Your task to perform on an android device: Open the calendar app, open the side menu, and click the "Day" option Image 0: 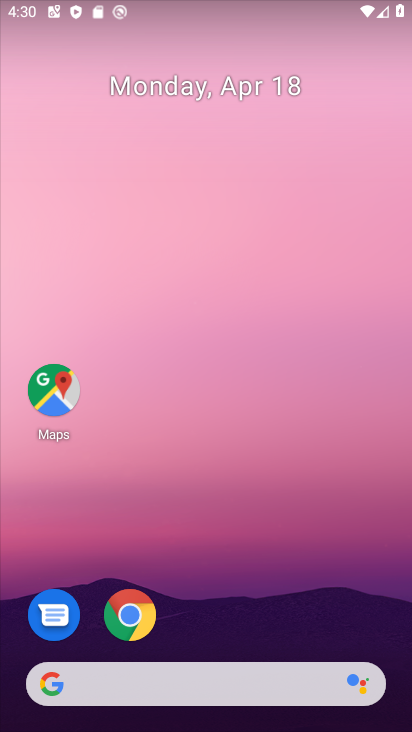
Step 0: drag from (247, 602) to (231, 102)
Your task to perform on an android device: Open the calendar app, open the side menu, and click the "Day" option Image 1: 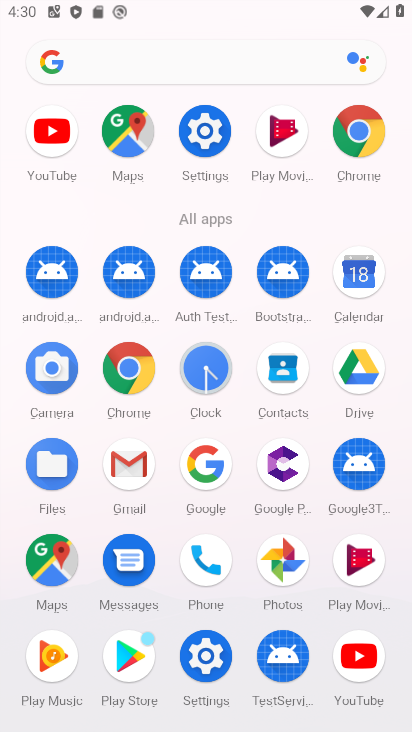
Step 1: drag from (241, 454) to (226, 103)
Your task to perform on an android device: Open the calendar app, open the side menu, and click the "Day" option Image 2: 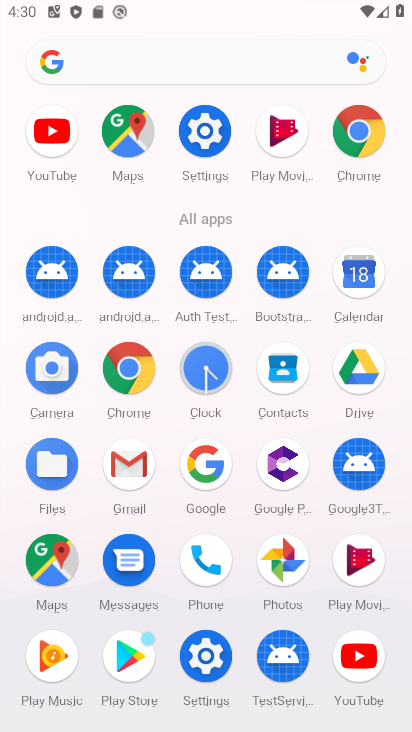
Step 2: click (355, 257)
Your task to perform on an android device: Open the calendar app, open the side menu, and click the "Day" option Image 3: 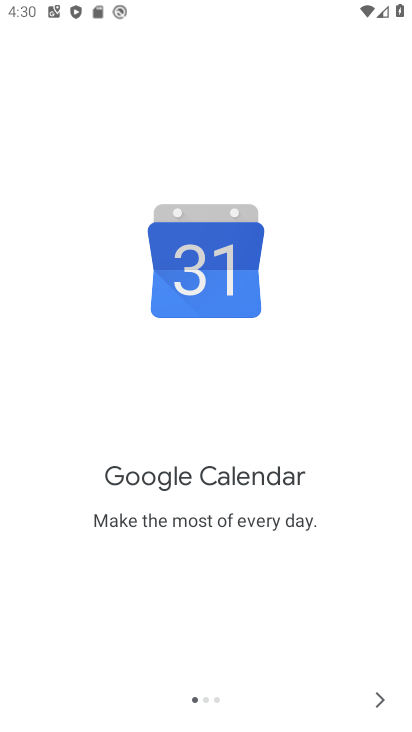
Step 3: click (378, 698)
Your task to perform on an android device: Open the calendar app, open the side menu, and click the "Day" option Image 4: 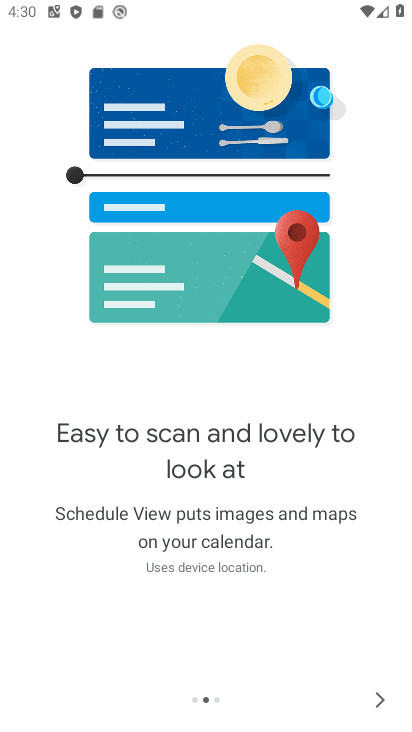
Step 4: click (378, 698)
Your task to perform on an android device: Open the calendar app, open the side menu, and click the "Day" option Image 5: 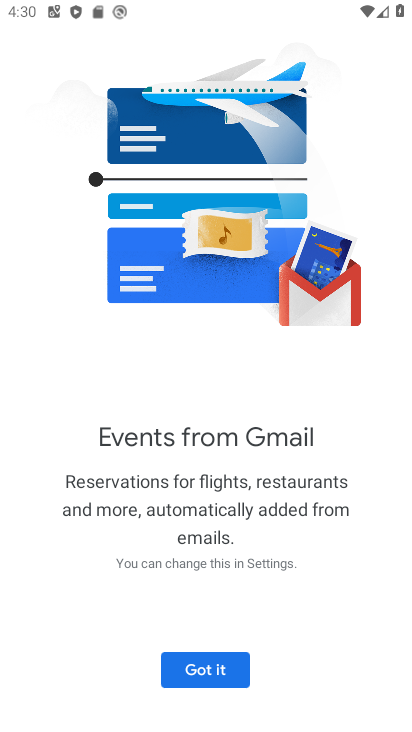
Step 5: click (178, 673)
Your task to perform on an android device: Open the calendar app, open the side menu, and click the "Day" option Image 6: 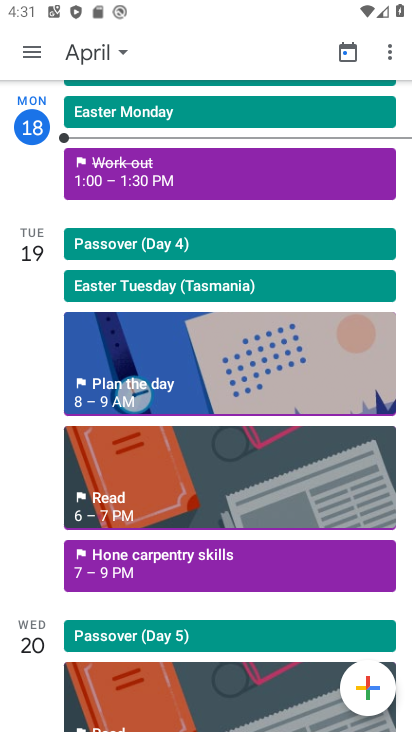
Step 6: click (26, 53)
Your task to perform on an android device: Open the calendar app, open the side menu, and click the "Day" option Image 7: 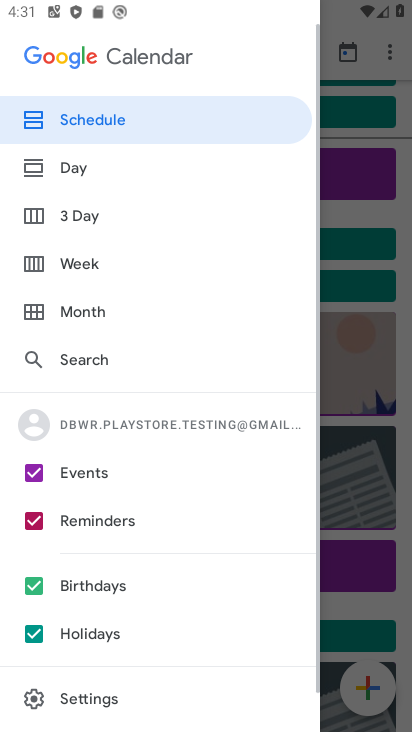
Step 7: click (97, 165)
Your task to perform on an android device: Open the calendar app, open the side menu, and click the "Day" option Image 8: 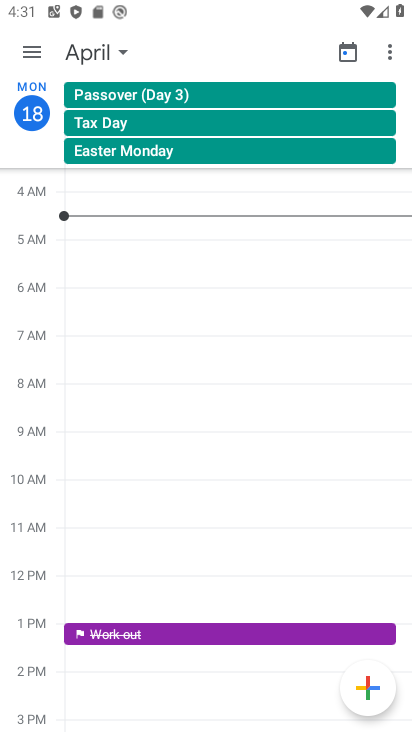
Step 8: task complete